Your task to perform on an android device: Go to Reddit.com Image 0: 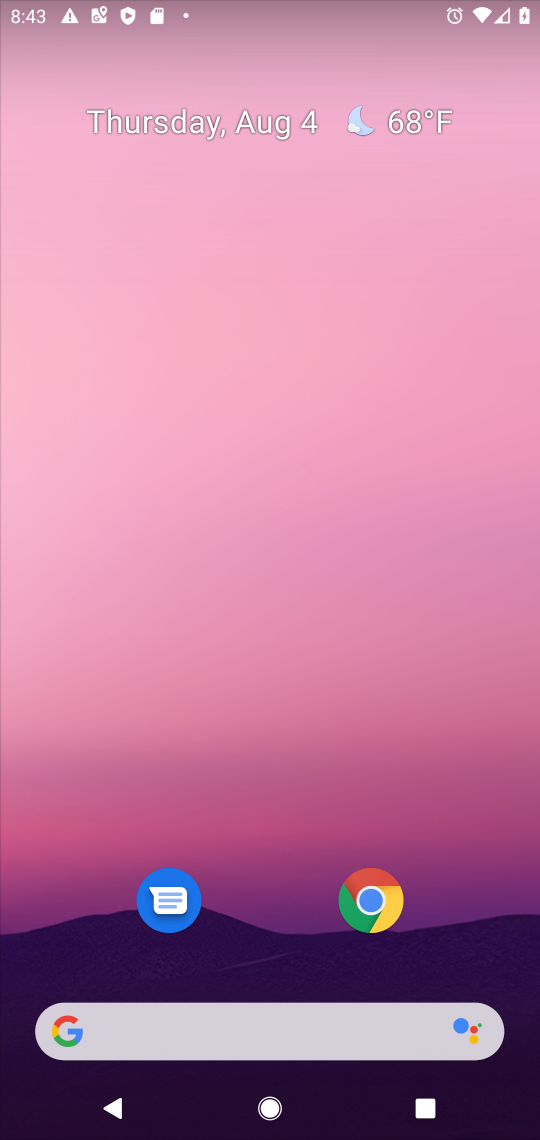
Step 0: click (373, 897)
Your task to perform on an android device: Go to Reddit.com Image 1: 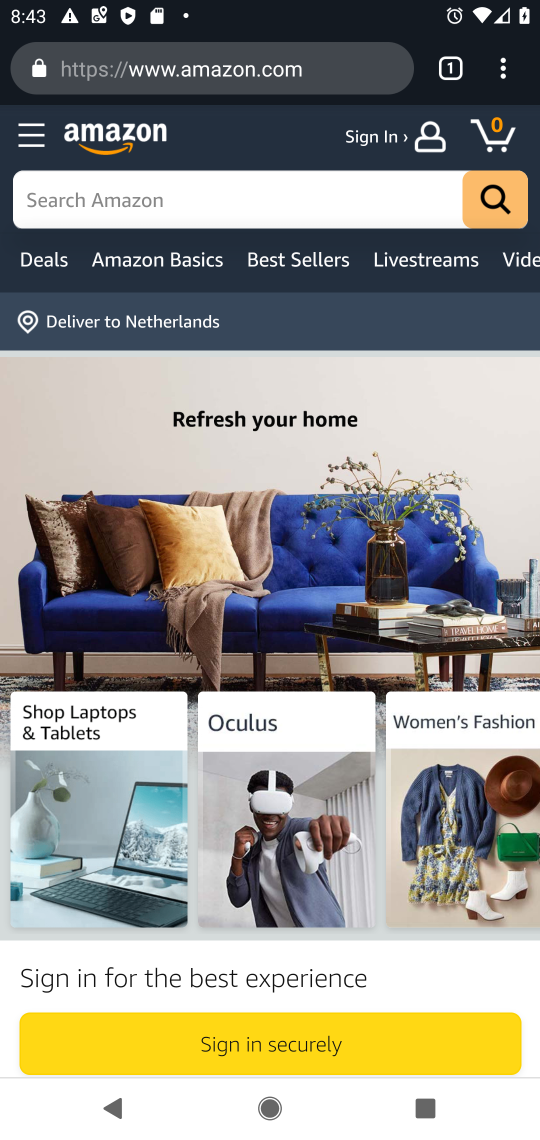
Step 1: click (343, 69)
Your task to perform on an android device: Go to Reddit.com Image 2: 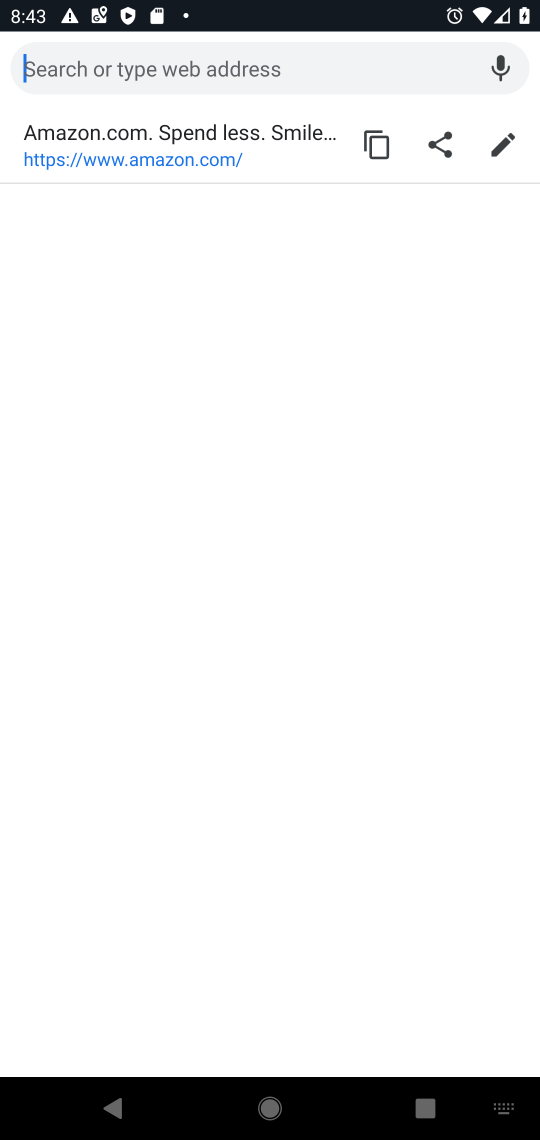
Step 2: type "Reddit.com"
Your task to perform on an android device: Go to Reddit.com Image 3: 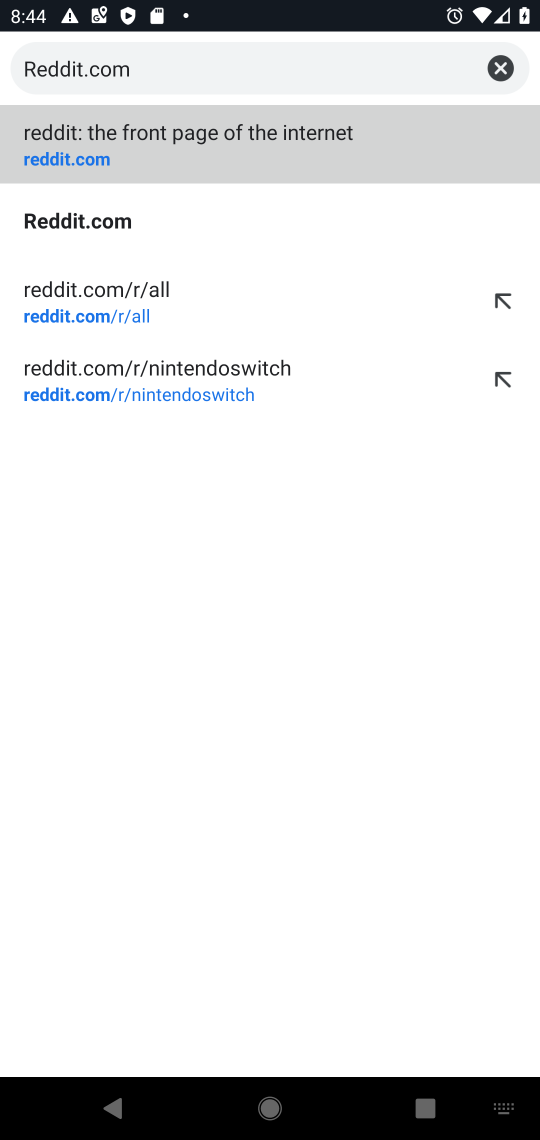
Step 3: click (93, 217)
Your task to perform on an android device: Go to Reddit.com Image 4: 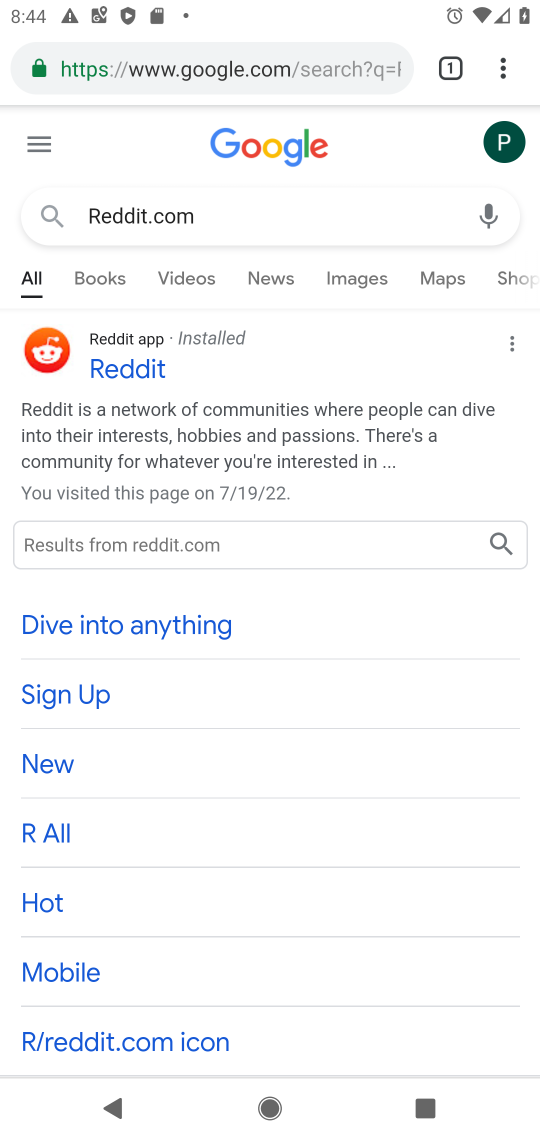
Step 4: click (138, 367)
Your task to perform on an android device: Go to Reddit.com Image 5: 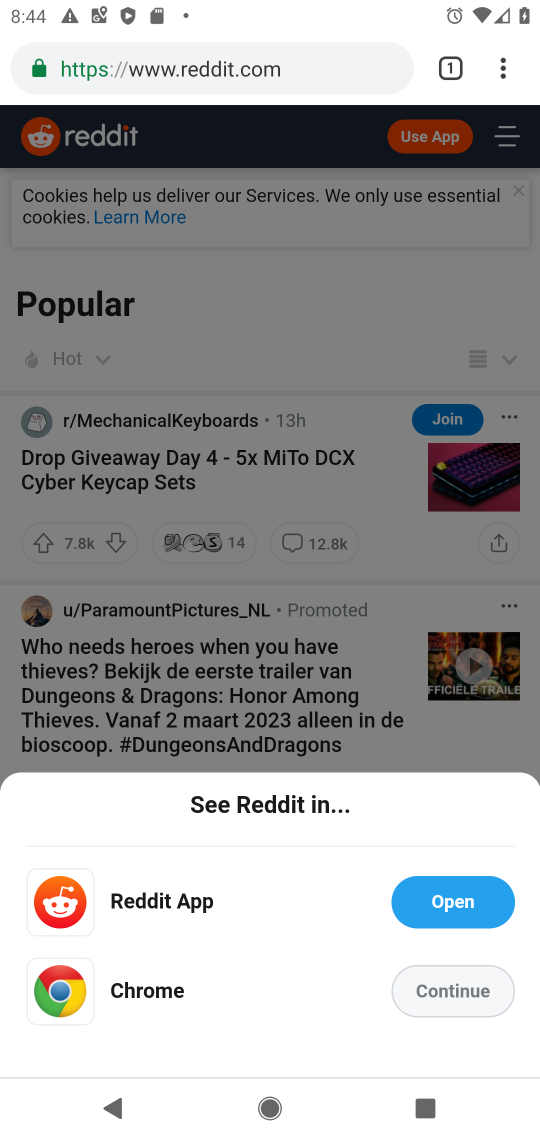
Step 5: click (450, 990)
Your task to perform on an android device: Go to Reddit.com Image 6: 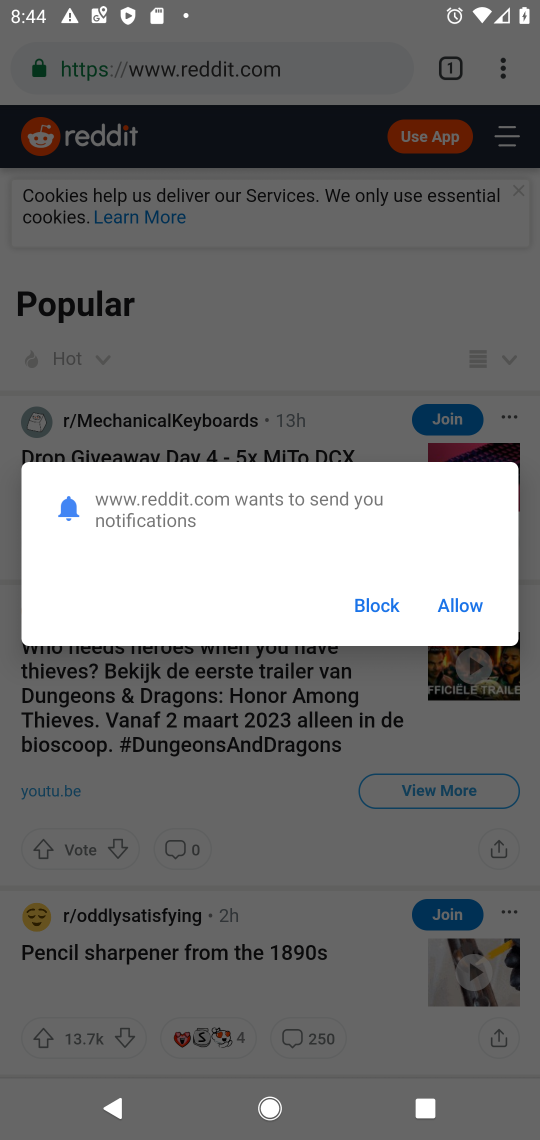
Step 6: click (466, 602)
Your task to perform on an android device: Go to Reddit.com Image 7: 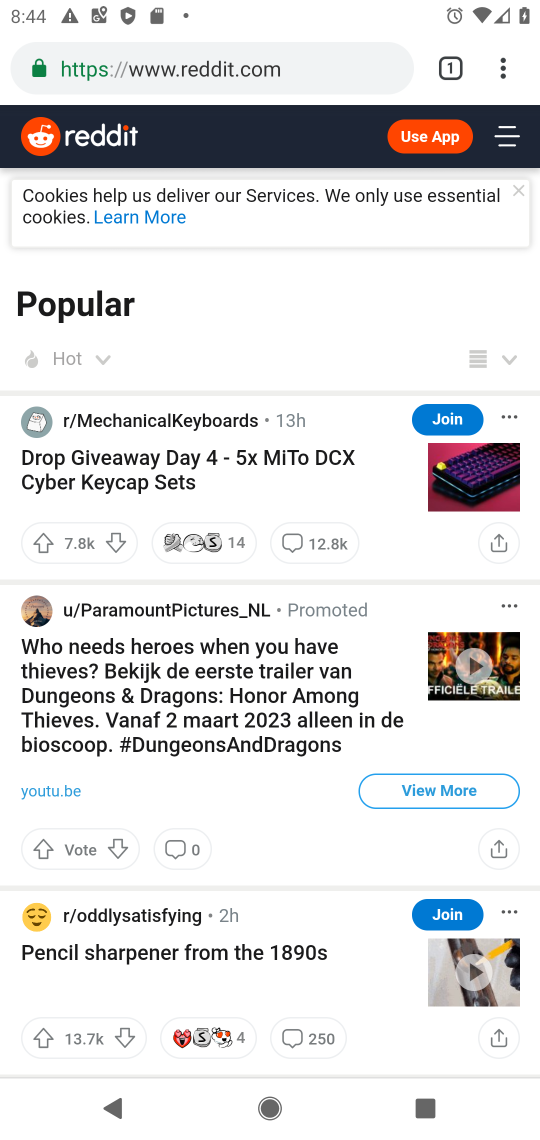
Step 7: task complete